Your task to perform on an android device: Open the web browser Image 0: 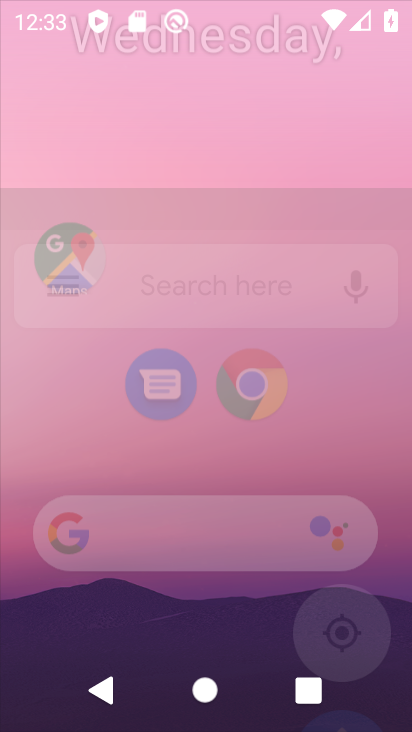
Step 0: click (168, 122)
Your task to perform on an android device: Open the web browser Image 1: 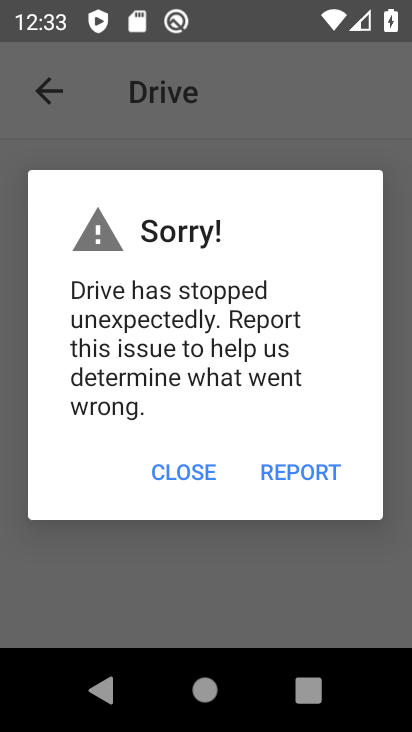
Step 1: click (197, 463)
Your task to perform on an android device: Open the web browser Image 2: 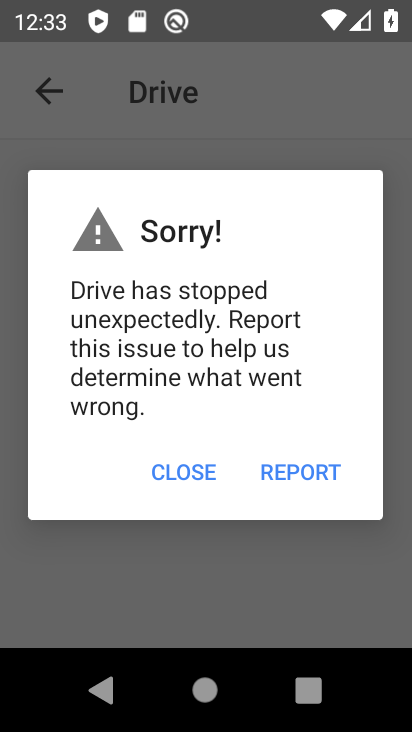
Step 2: click (196, 464)
Your task to perform on an android device: Open the web browser Image 3: 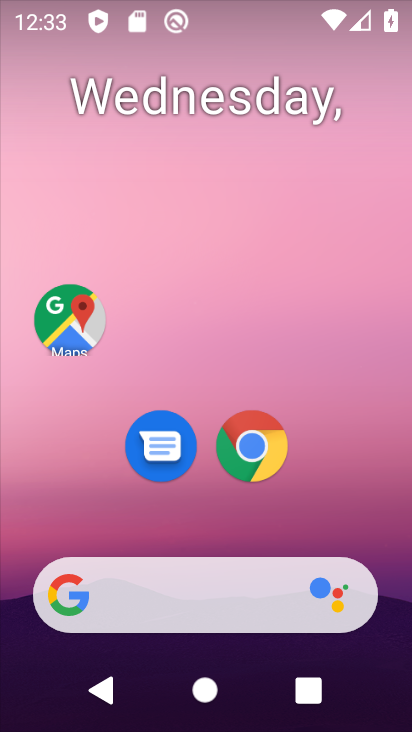
Step 3: drag from (273, 619) to (153, 47)
Your task to perform on an android device: Open the web browser Image 4: 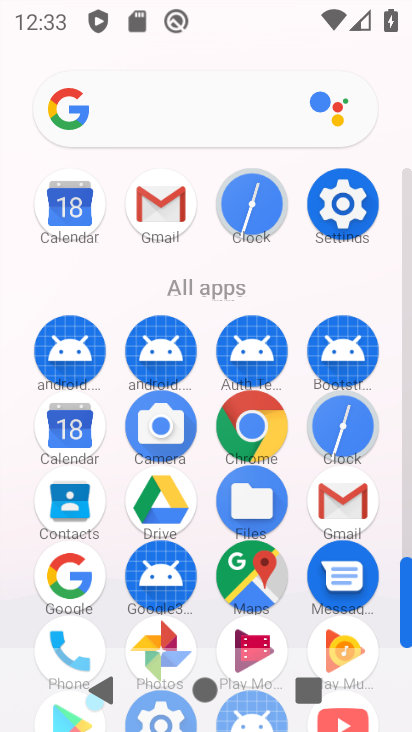
Step 4: click (233, 429)
Your task to perform on an android device: Open the web browser Image 5: 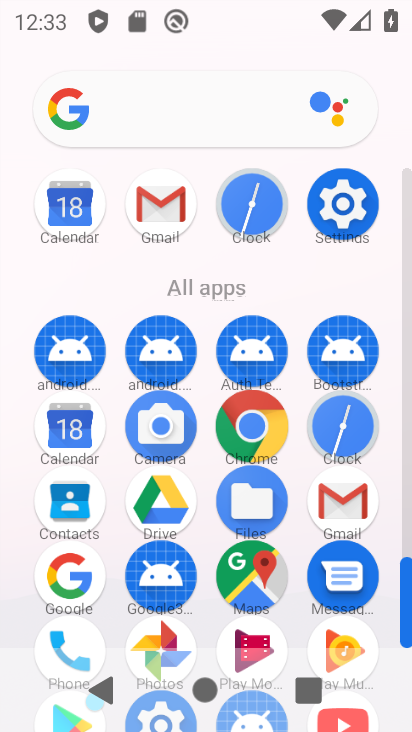
Step 5: click (237, 426)
Your task to perform on an android device: Open the web browser Image 6: 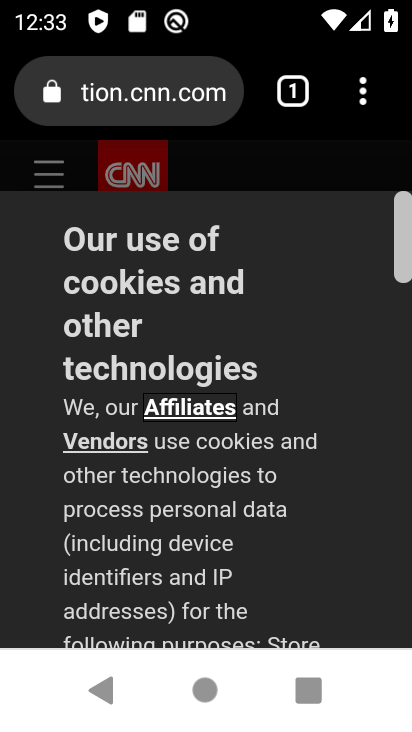
Step 6: task complete